Your task to perform on an android device: Go to Yahoo.com Image 0: 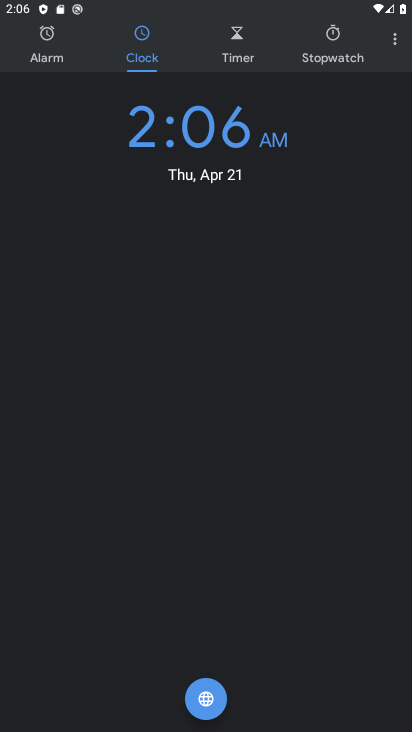
Step 0: press home button
Your task to perform on an android device: Go to Yahoo.com Image 1: 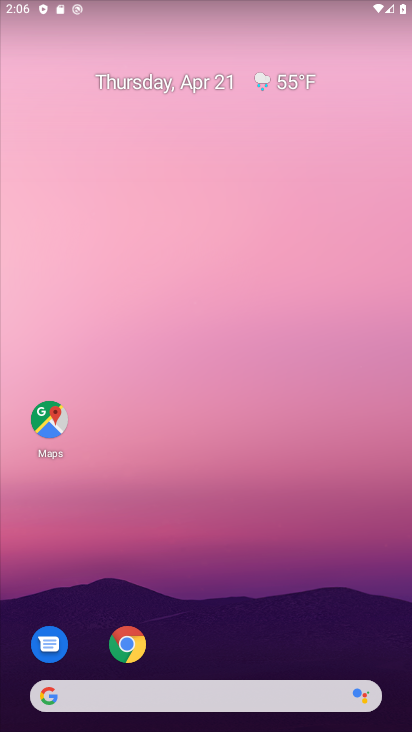
Step 1: click (125, 656)
Your task to perform on an android device: Go to Yahoo.com Image 2: 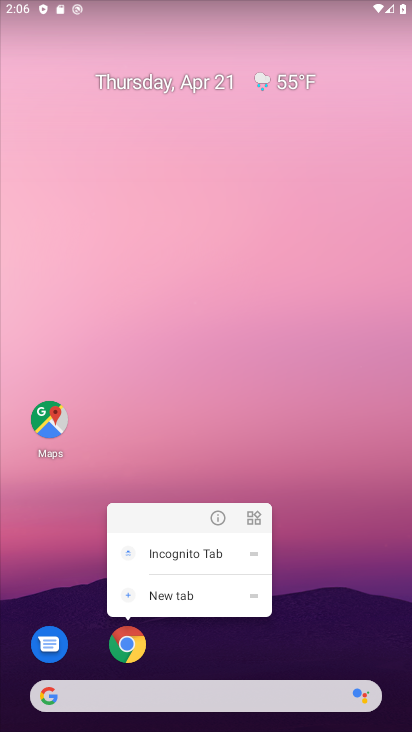
Step 2: click (127, 653)
Your task to perform on an android device: Go to Yahoo.com Image 3: 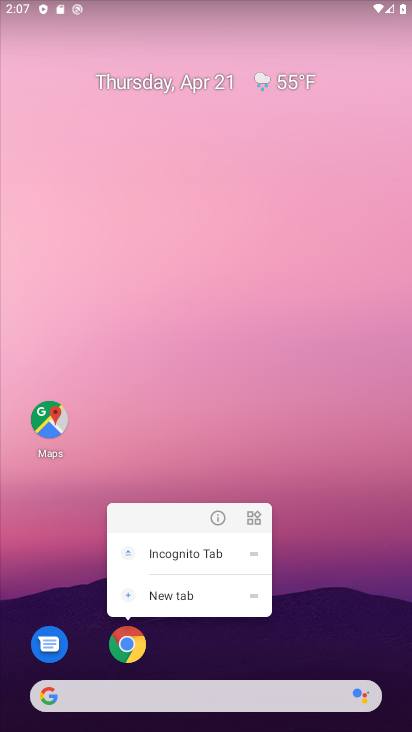
Step 3: click (123, 648)
Your task to perform on an android device: Go to Yahoo.com Image 4: 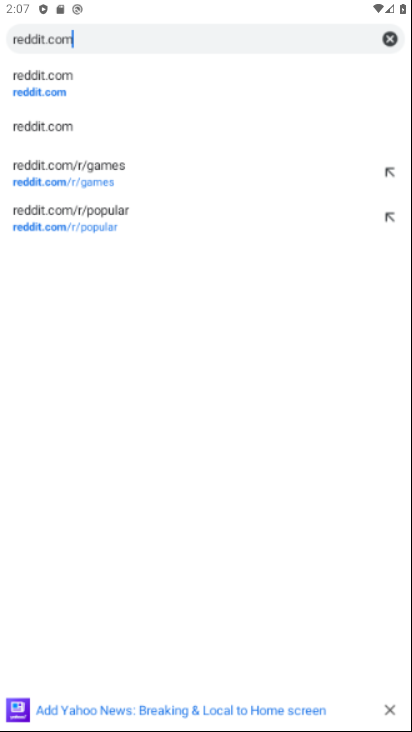
Step 4: click (136, 643)
Your task to perform on an android device: Go to Yahoo.com Image 5: 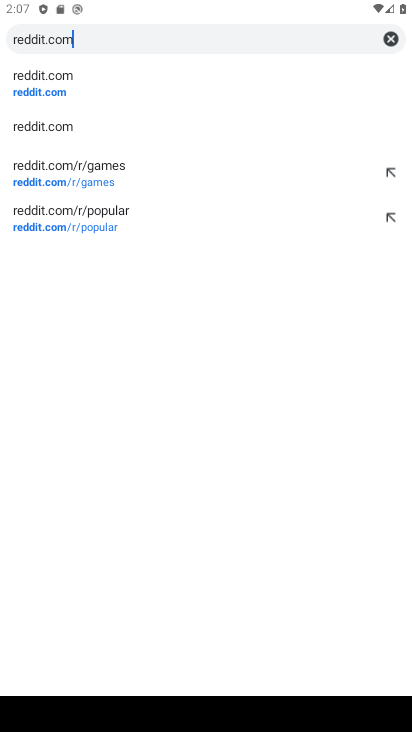
Step 5: click (389, 32)
Your task to perform on an android device: Go to Yahoo.com Image 6: 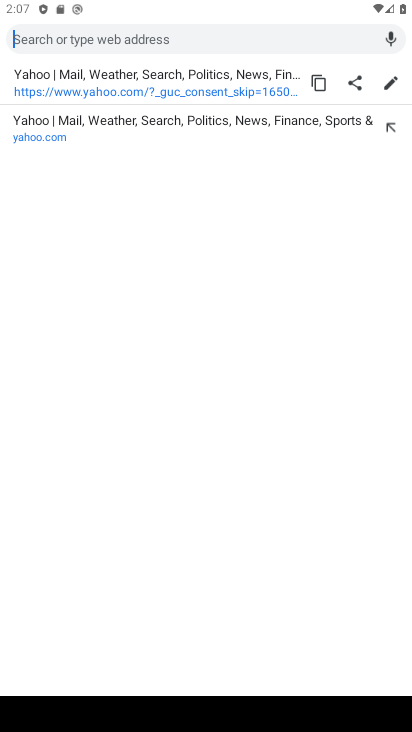
Step 6: type "yahoo.com"
Your task to perform on an android device: Go to Yahoo.com Image 7: 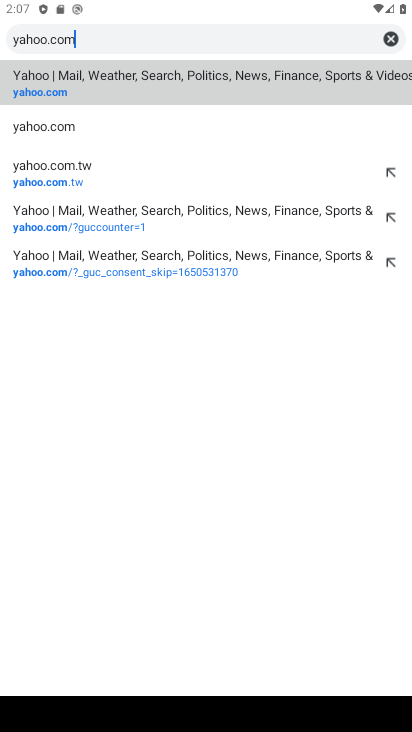
Step 7: click (86, 82)
Your task to perform on an android device: Go to Yahoo.com Image 8: 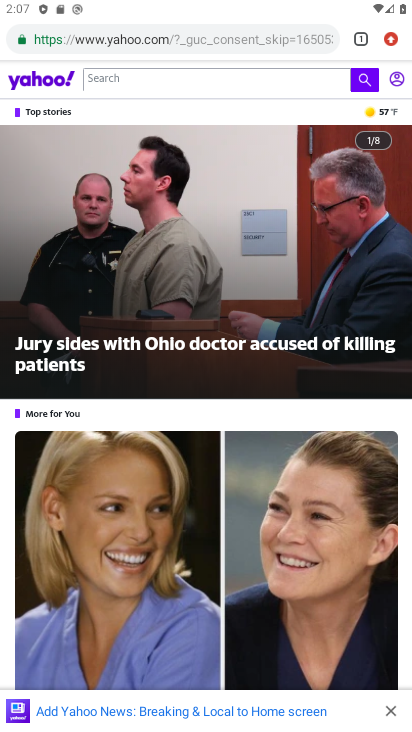
Step 8: task complete